Your task to perform on an android device: Open Google Chrome and click the shortcut for Amazon.com Image 0: 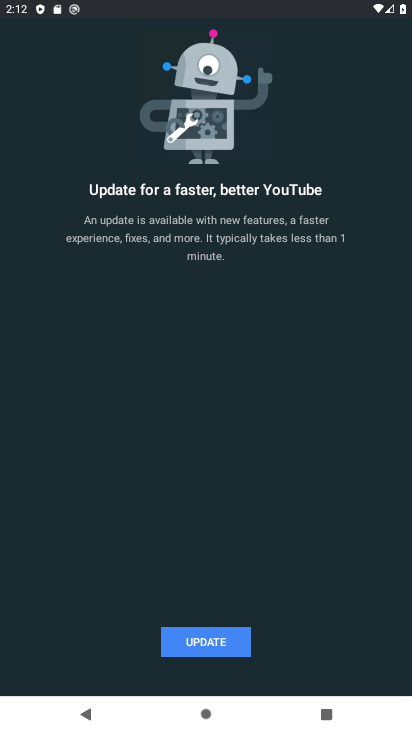
Step 0: press home button
Your task to perform on an android device: Open Google Chrome and click the shortcut for Amazon.com Image 1: 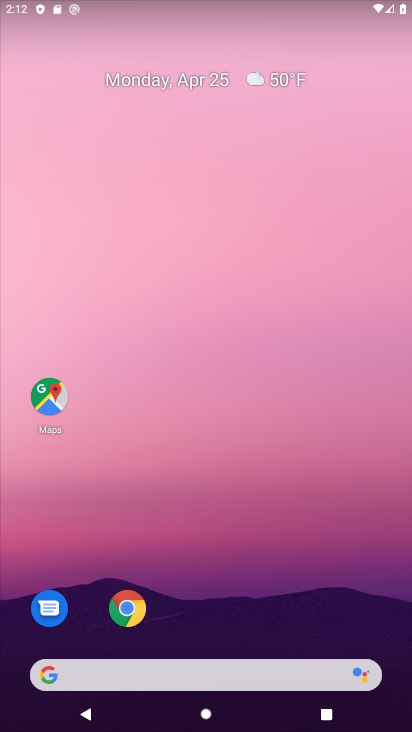
Step 1: click (127, 604)
Your task to perform on an android device: Open Google Chrome and click the shortcut for Amazon.com Image 2: 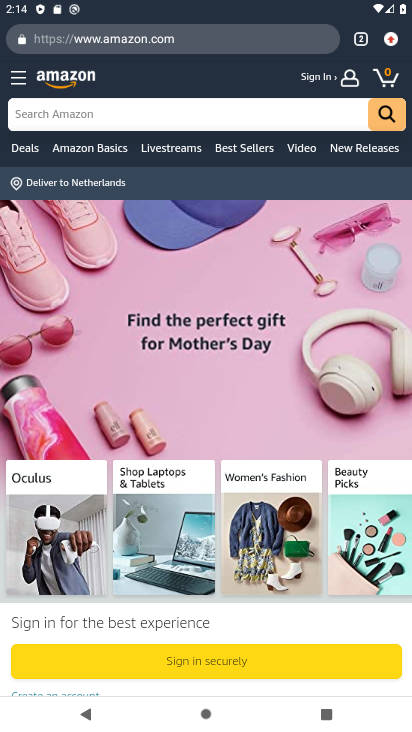
Step 2: task complete